Your task to perform on an android device: Search for Italian restaurants on Maps Image 0: 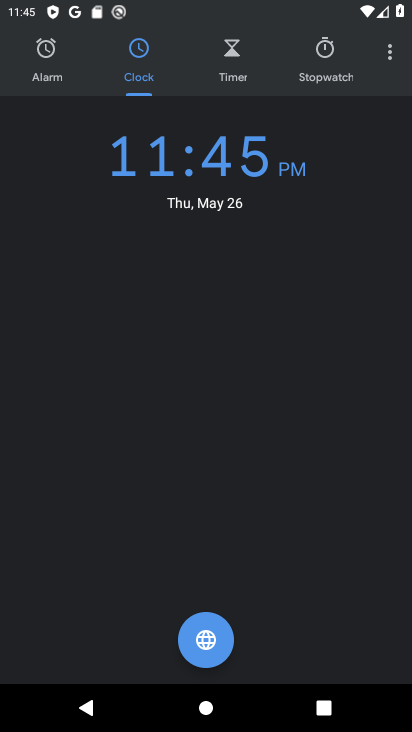
Step 0: press home button
Your task to perform on an android device: Search for Italian restaurants on Maps Image 1: 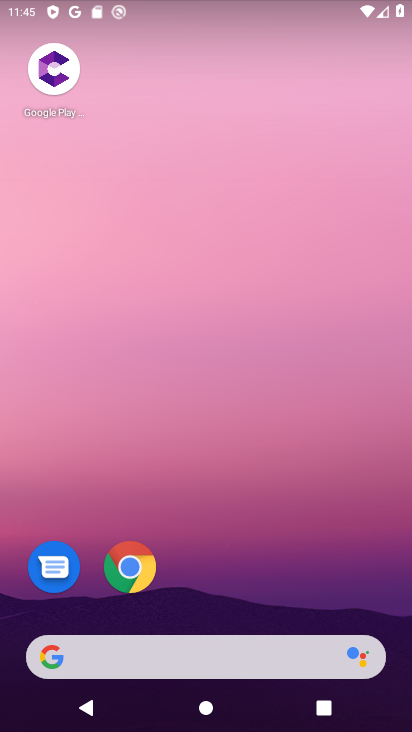
Step 1: drag from (214, 611) to (196, 77)
Your task to perform on an android device: Search for Italian restaurants on Maps Image 2: 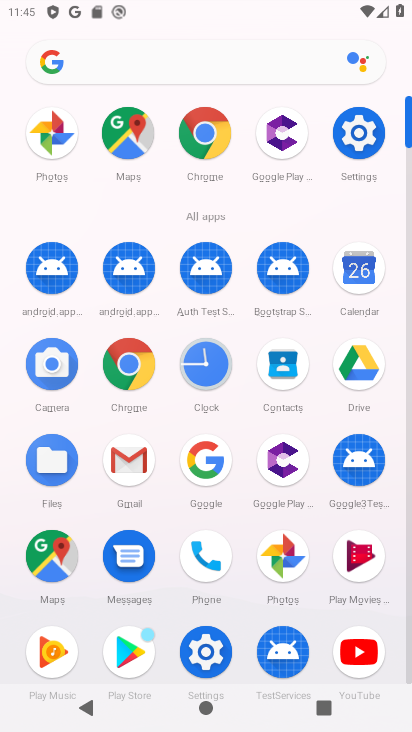
Step 2: click (126, 142)
Your task to perform on an android device: Search for Italian restaurants on Maps Image 3: 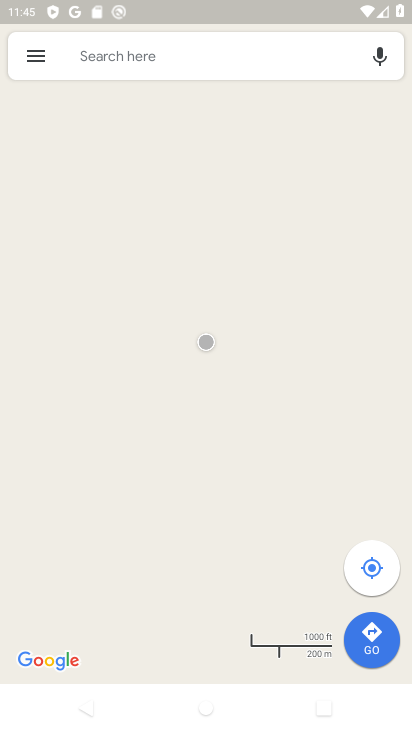
Step 3: click (163, 57)
Your task to perform on an android device: Search for Italian restaurants on Maps Image 4: 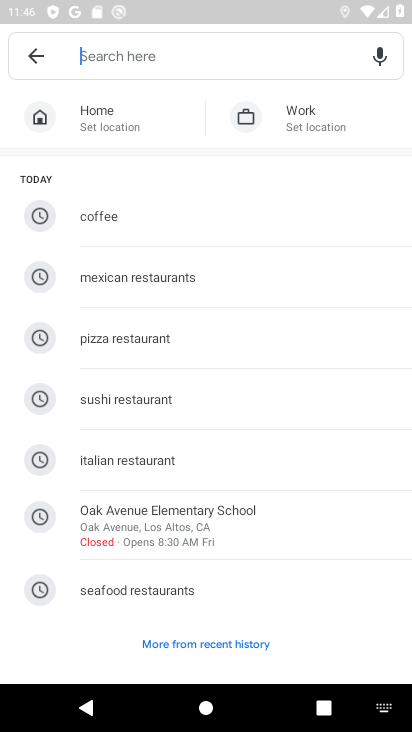
Step 4: type "italian restaurant"
Your task to perform on an android device: Search for Italian restaurants on Maps Image 5: 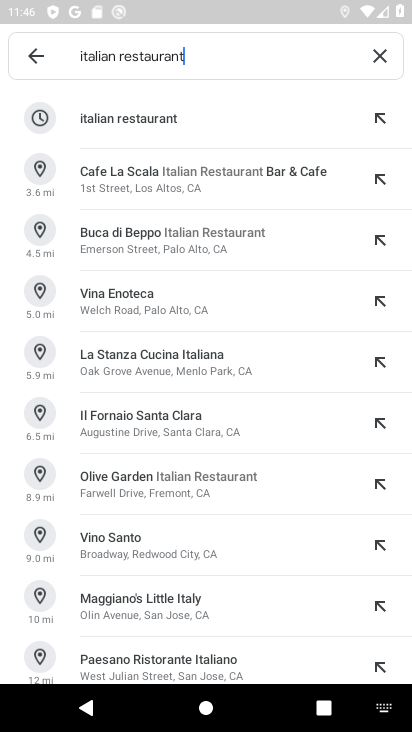
Step 5: click (147, 102)
Your task to perform on an android device: Search for Italian restaurants on Maps Image 6: 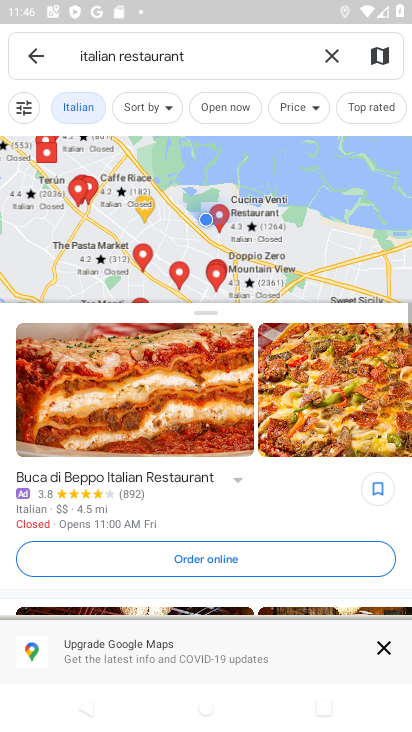
Step 6: task complete